Your task to perform on an android device: check data usage Image 0: 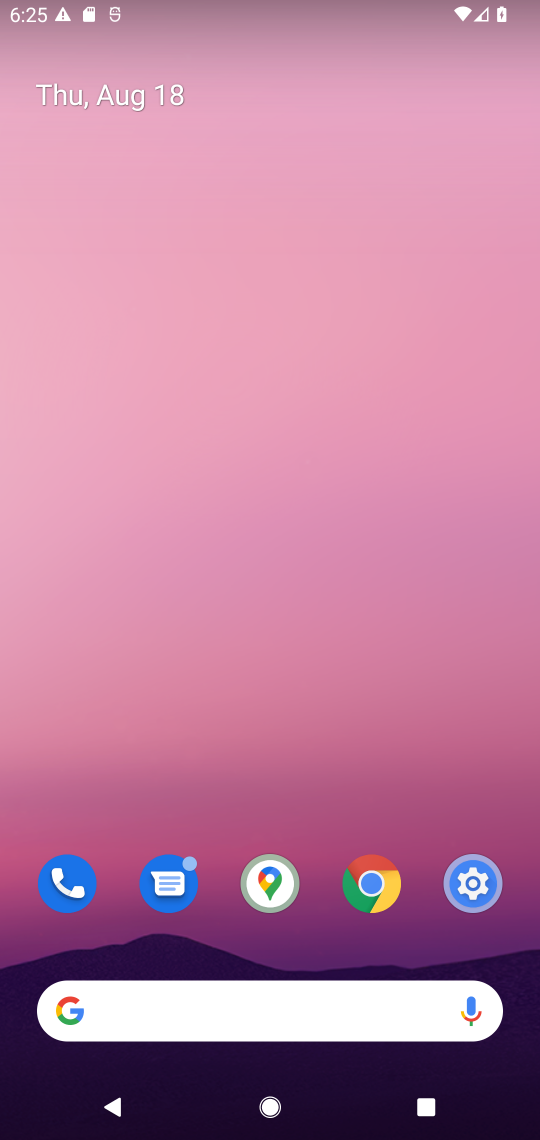
Step 0: click (454, 897)
Your task to perform on an android device: check data usage Image 1: 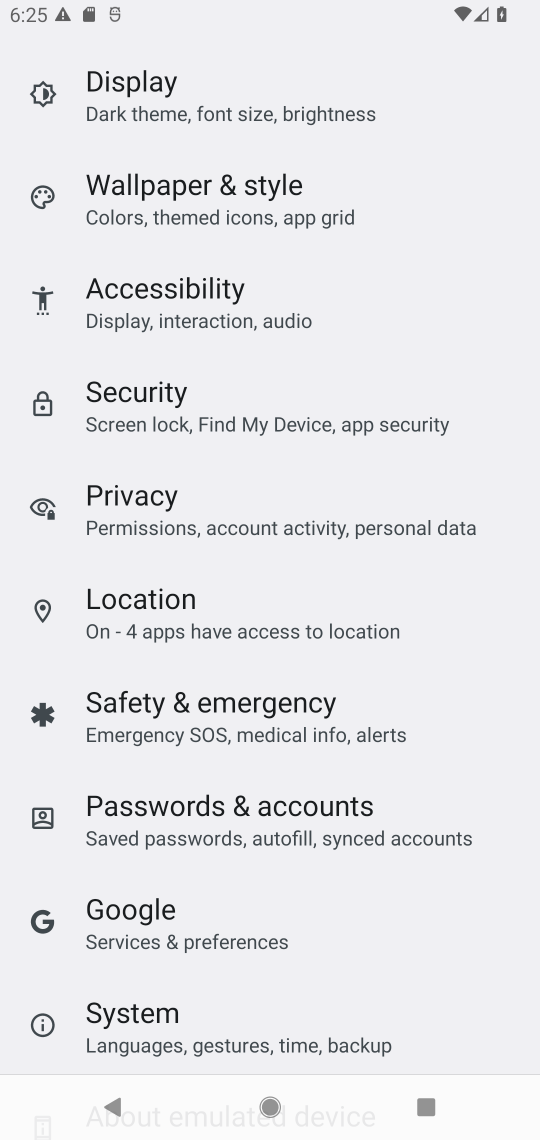
Step 1: drag from (420, 106) to (274, 772)
Your task to perform on an android device: check data usage Image 2: 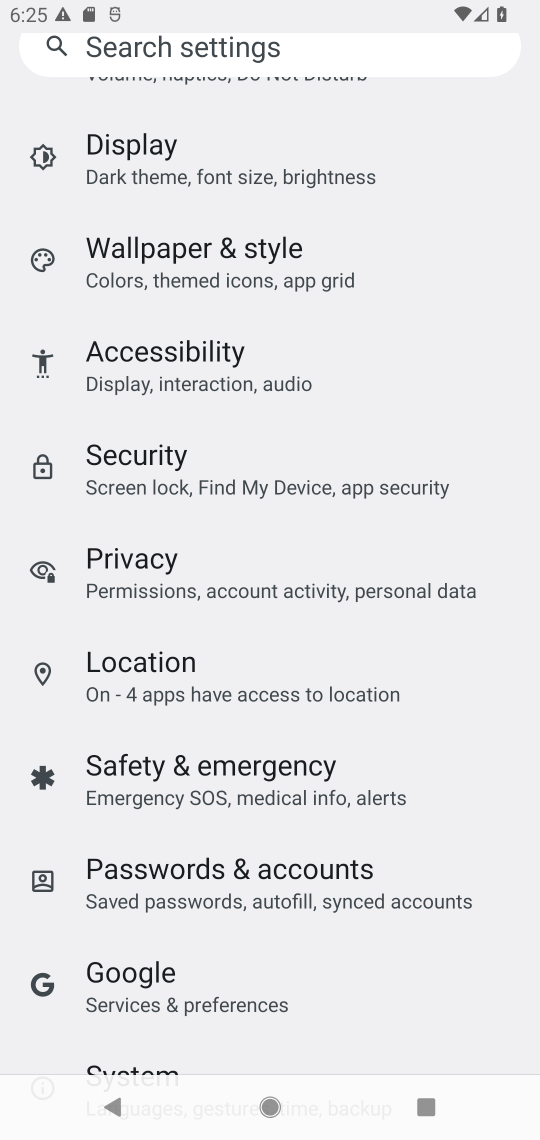
Step 2: drag from (391, 124) to (437, 1101)
Your task to perform on an android device: check data usage Image 3: 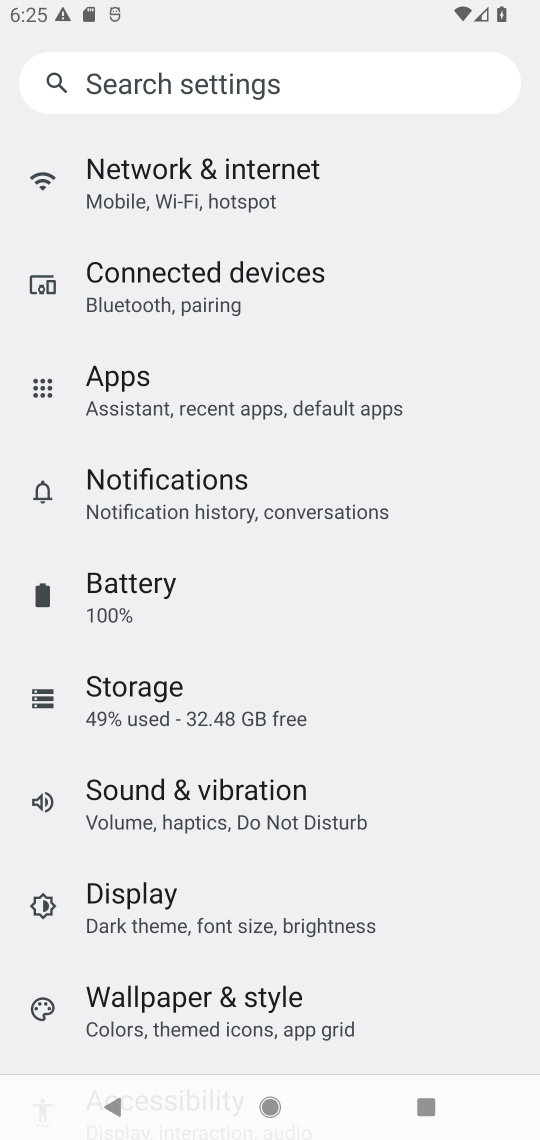
Step 3: click (149, 182)
Your task to perform on an android device: check data usage Image 4: 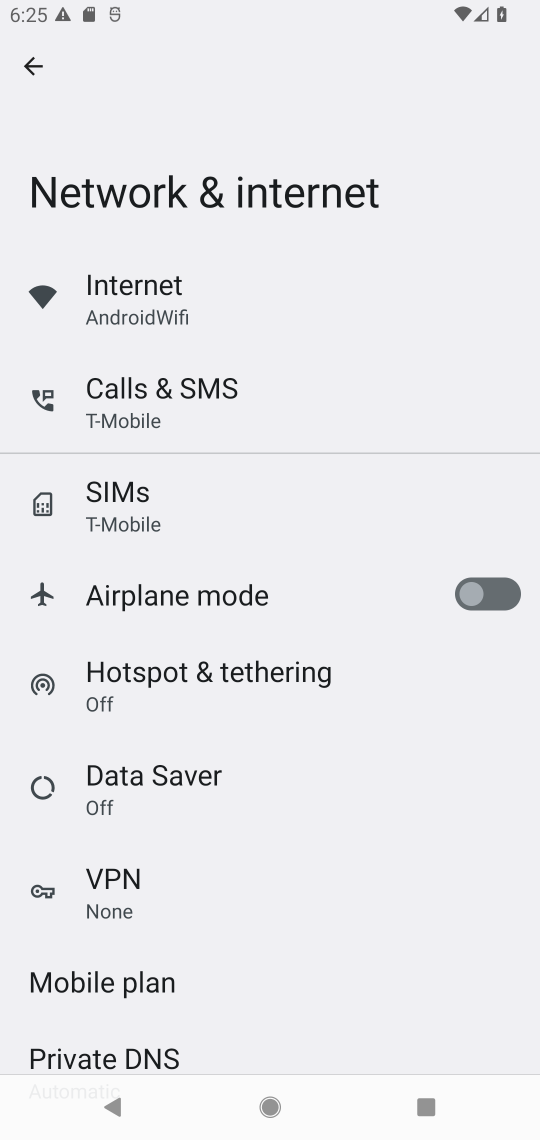
Step 4: click (155, 320)
Your task to perform on an android device: check data usage Image 5: 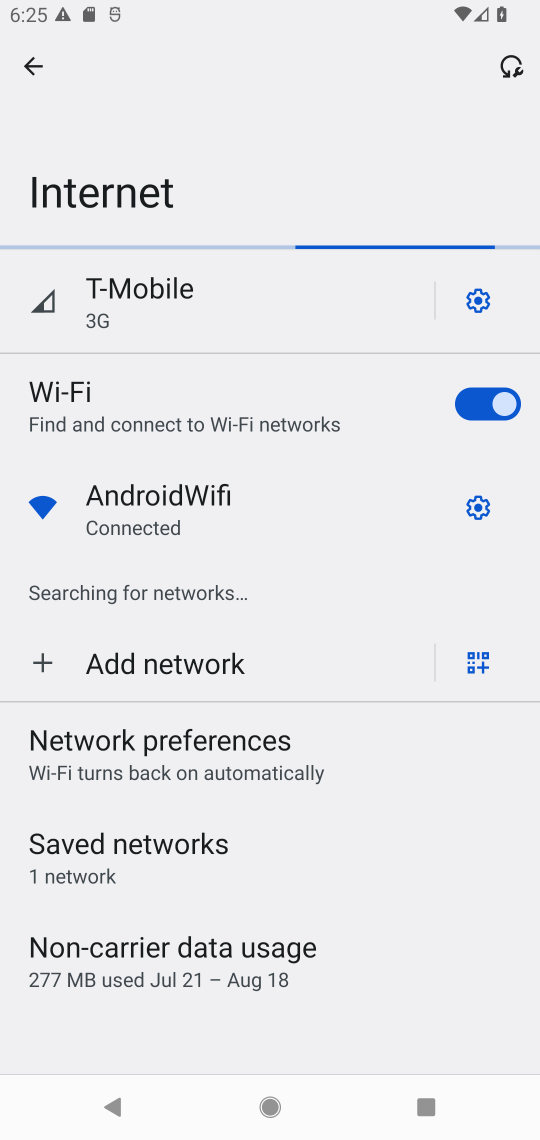
Step 5: click (154, 278)
Your task to perform on an android device: check data usage Image 6: 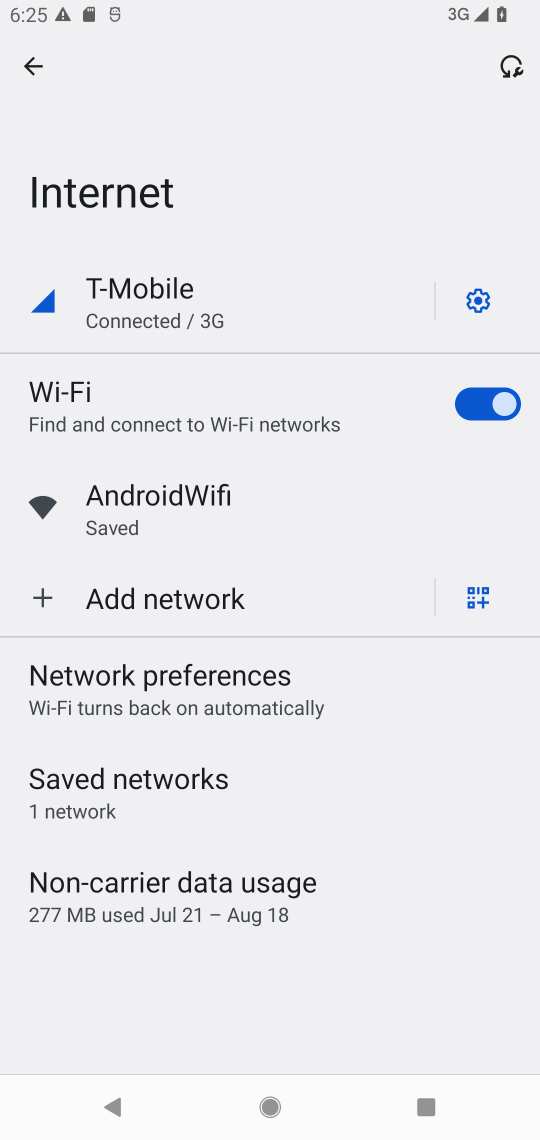
Step 6: click (156, 925)
Your task to perform on an android device: check data usage Image 7: 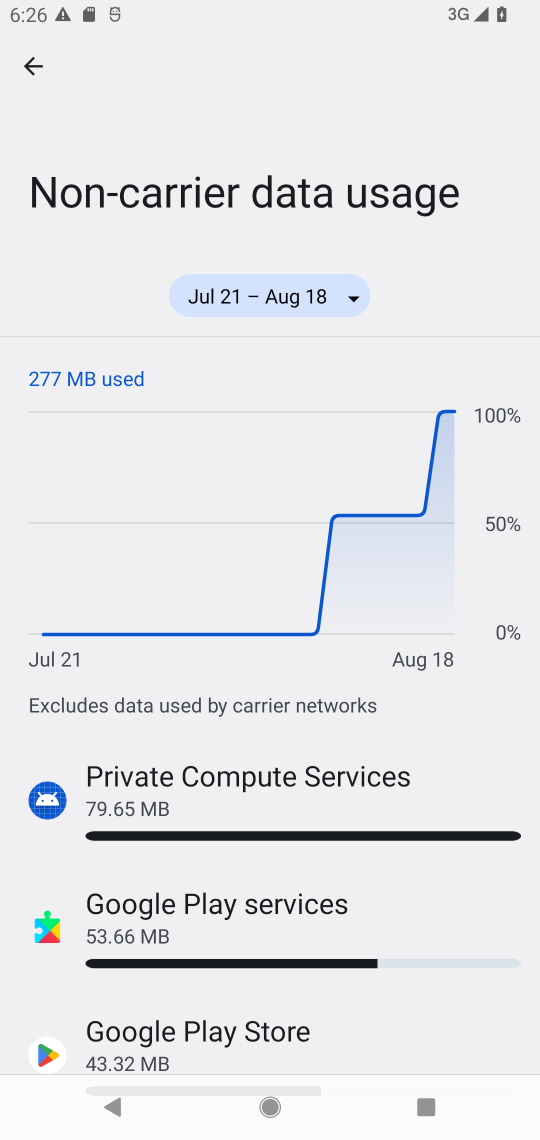
Step 7: task complete